Your task to perform on an android device: Show me productivity apps on the Play Store Image 0: 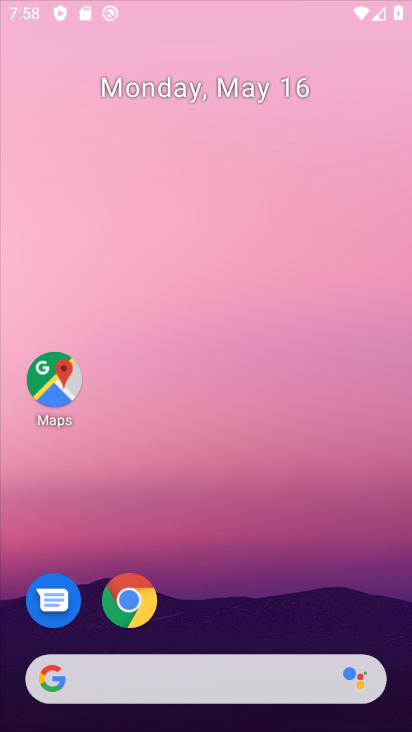
Step 0: click (280, 143)
Your task to perform on an android device: Show me productivity apps on the Play Store Image 1: 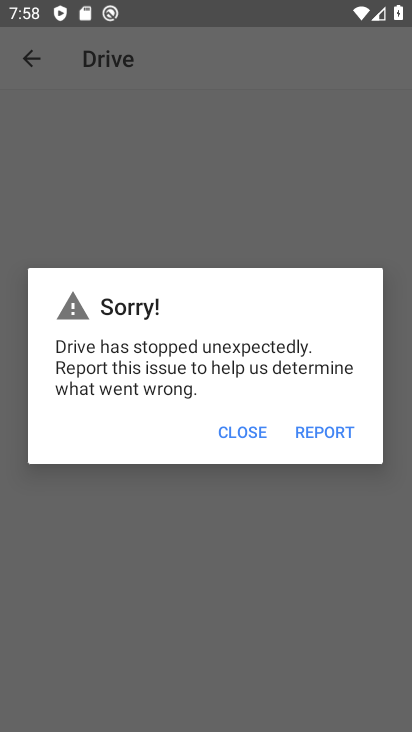
Step 1: press home button
Your task to perform on an android device: Show me productivity apps on the Play Store Image 2: 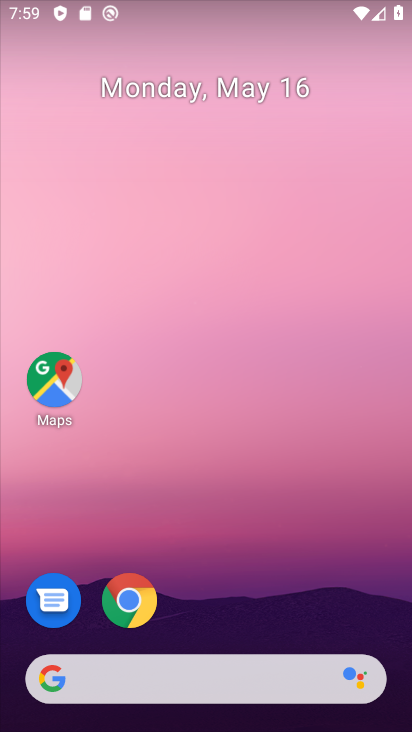
Step 2: drag from (387, 654) to (336, 332)
Your task to perform on an android device: Show me productivity apps on the Play Store Image 3: 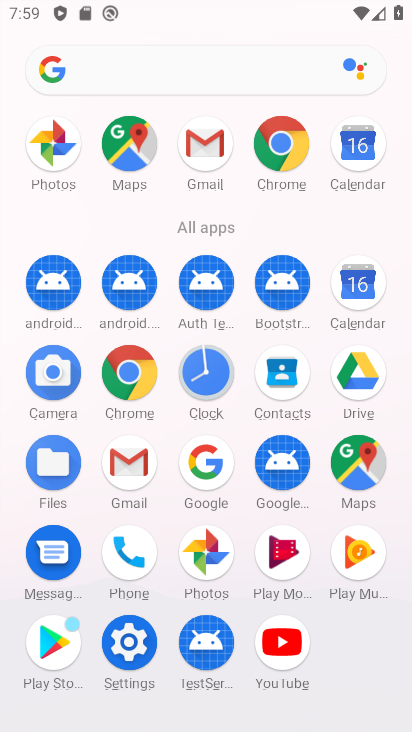
Step 3: click (58, 640)
Your task to perform on an android device: Show me productivity apps on the Play Store Image 4: 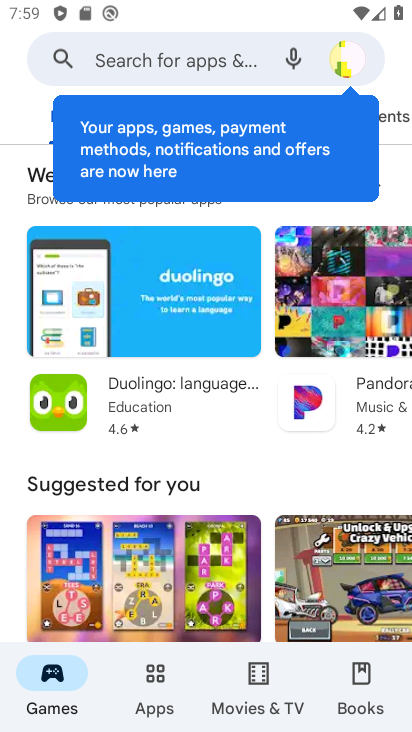
Step 4: click (156, 673)
Your task to perform on an android device: Show me productivity apps on the Play Store Image 5: 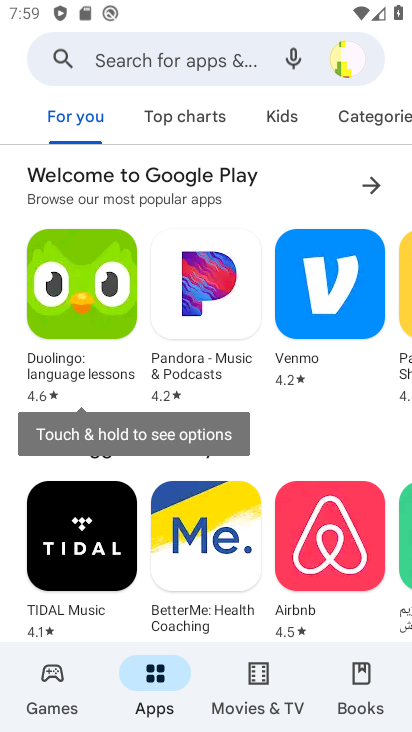
Step 5: click (375, 121)
Your task to perform on an android device: Show me productivity apps on the Play Store Image 6: 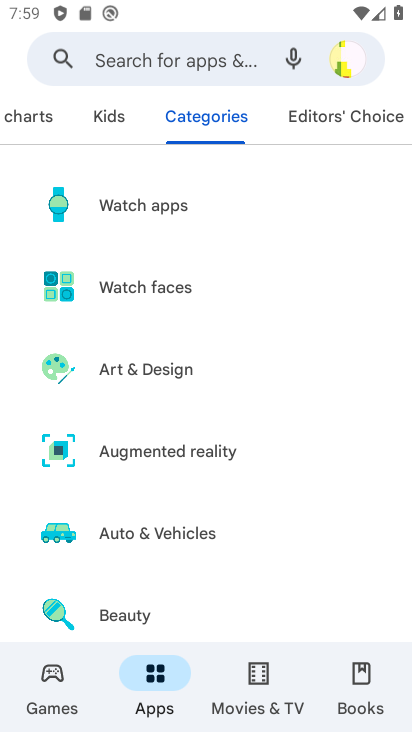
Step 6: drag from (295, 293) to (297, 182)
Your task to perform on an android device: Show me productivity apps on the Play Store Image 7: 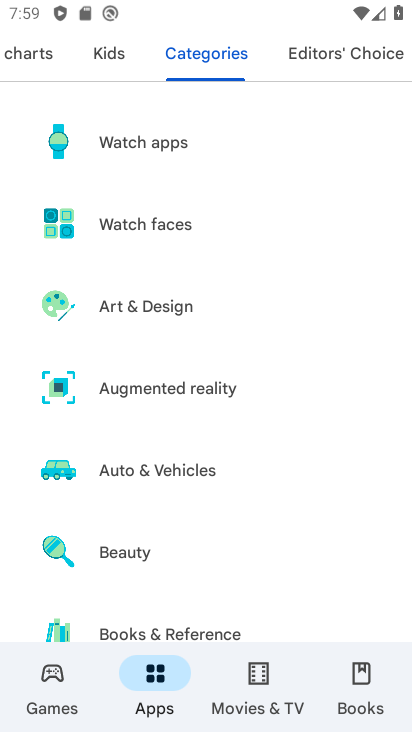
Step 7: drag from (229, 591) to (255, 200)
Your task to perform on an android device: Show me productivity apps on the Play Store Image 8: 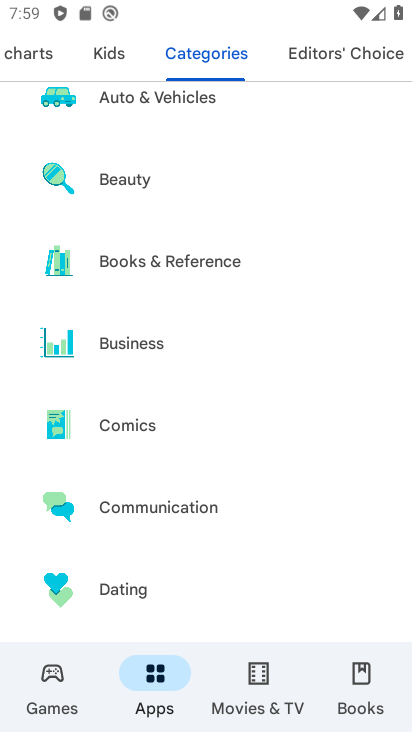
Step 8: drag from (244, 574) to (280, 162)
Your task to perform on an android device: Show me productivity apps on the Play Store Image 9: 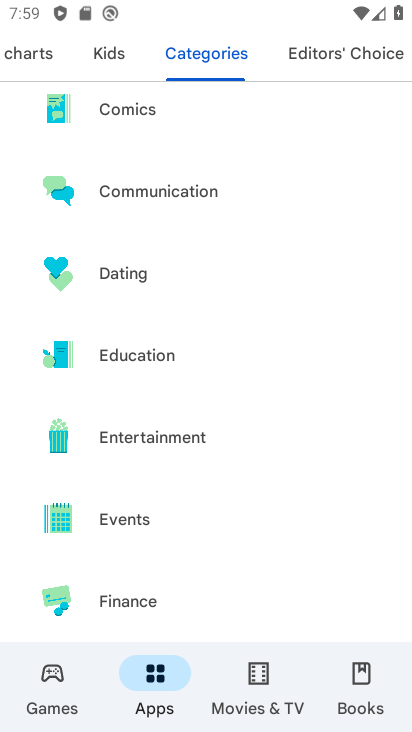
Step 9: drag from (228, 579) to (267, 137)
Your task to perform on an android device: Show me productivity apps on the Play Store Image 10: 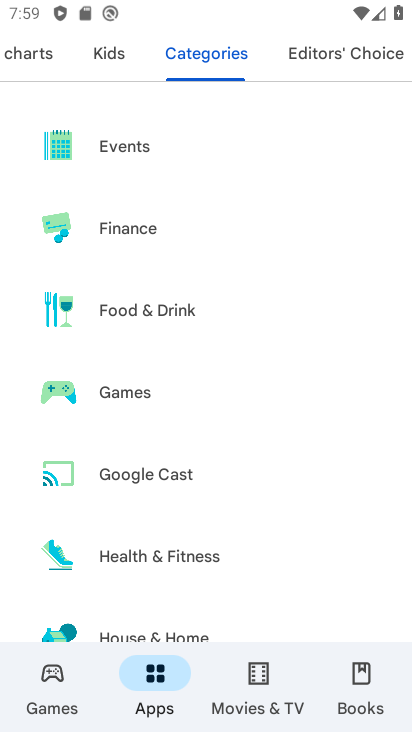
Step 10: click (267, 137)
Your task to perform on an android device: Show me productivity apps on the Play Store Image 11: 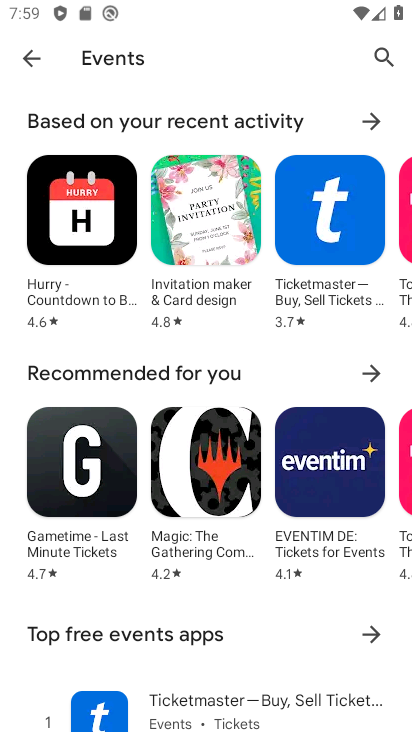
Step 11: press back button
Your task to perform on an android device: Show me productivity apps on the Play Store Image 12: 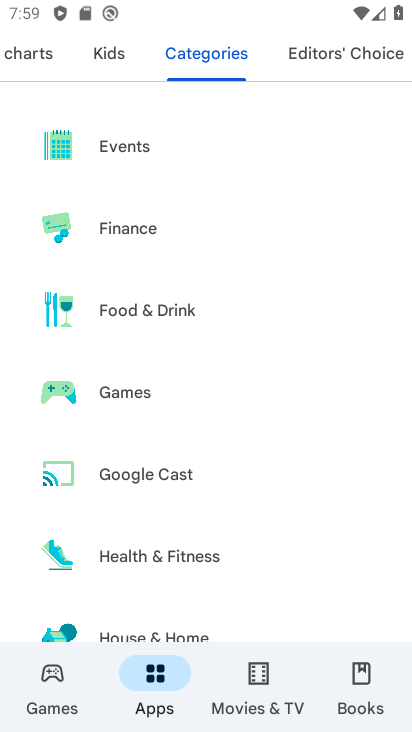
Step 12: drag from (288, 588) to (258, 117)
Your task to perform on an android device: Show me productivity apps on the Play Store Image 13: 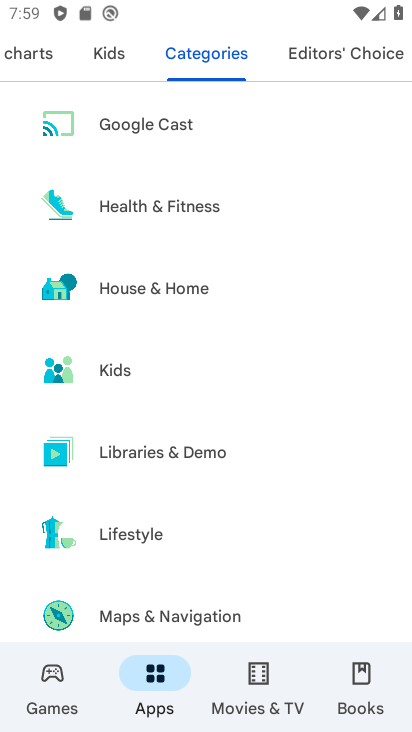
Step 13: drag from (282, 567) to (282, 166)
Your task to perform on an android device: Show me productivity apps on the Play Store Image 14: 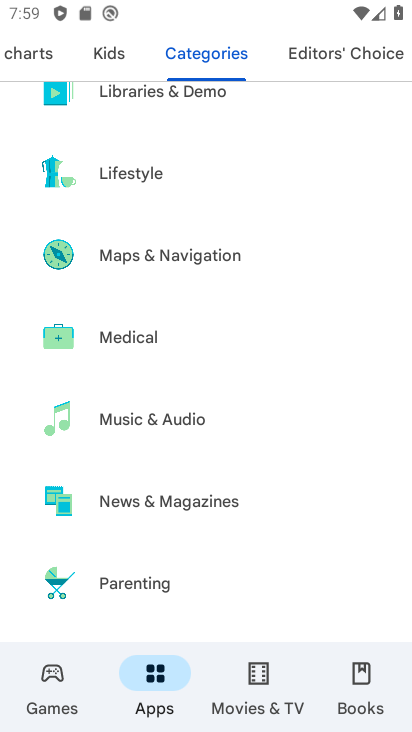
Step 14: drag from (255, 575) to (267, 180)
Your task to perform on an android device: Show me productivity apps on the Play Store Image 15: 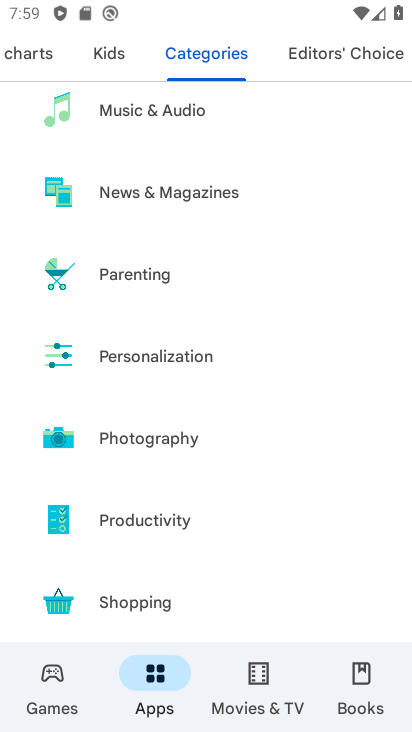
Step 15: click (140, 520)
Your task to perform on an android device: Show me productivity apps on the Play Store Image 16: 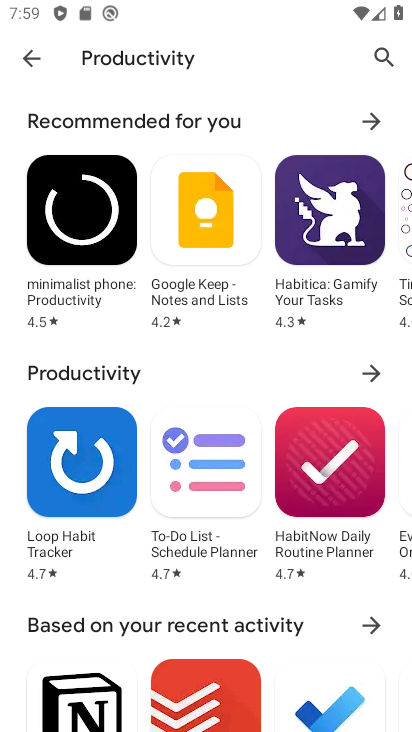
Step 16: click (367, 377)
Your task to perform on an android device: Show me productivity apps on the Play Store Image 17: 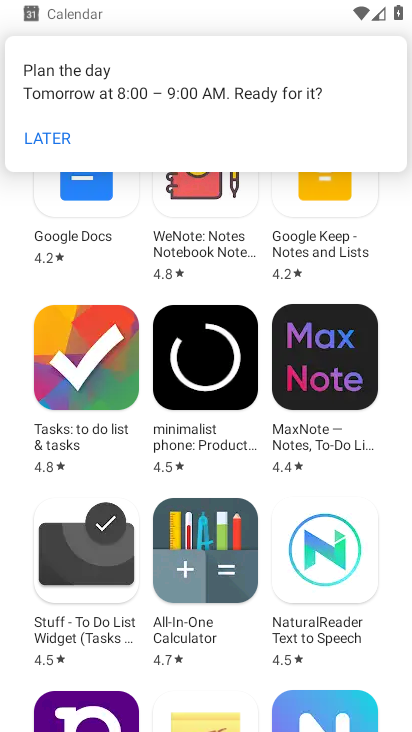
Step 17: task complete